Your task to perform on an android device: Open settings Image 0: 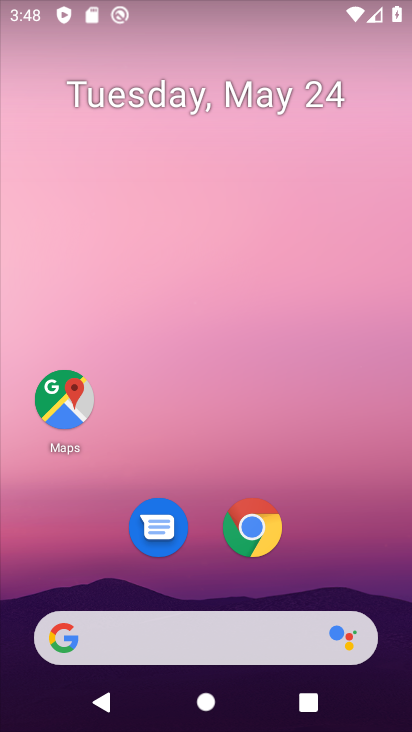
Step 0: drag from (245, 664) to (247, 33)
Your task to perform on an android device: Open settings Image 1: 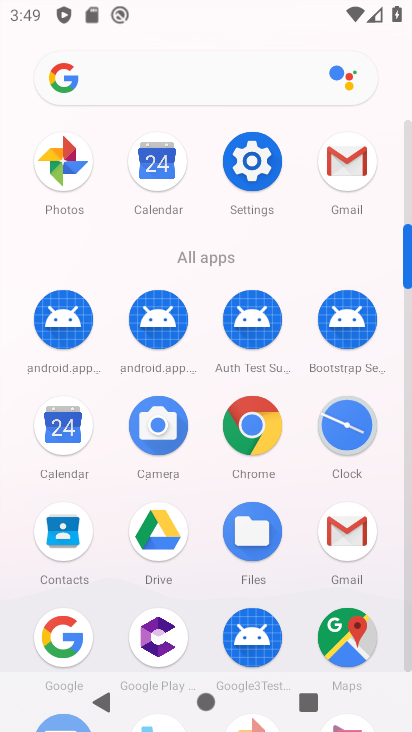
Step 1: click (244, 184)
Your task to perform on an android device: Open settings Image 2: 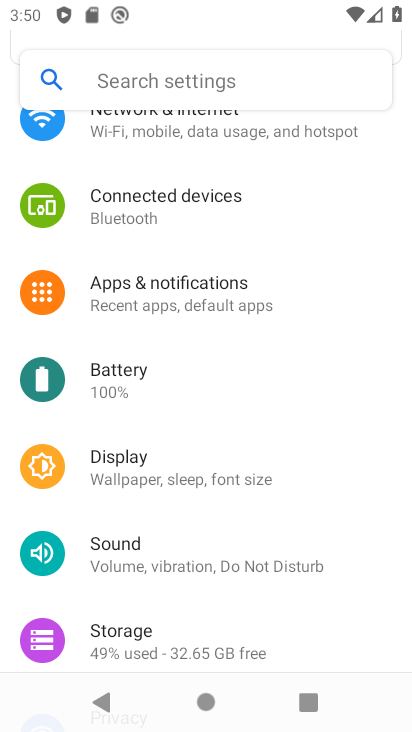
Step 2: task complete